Your task to perform on an android device: turn on notifications settings in the gmail app Image 0: 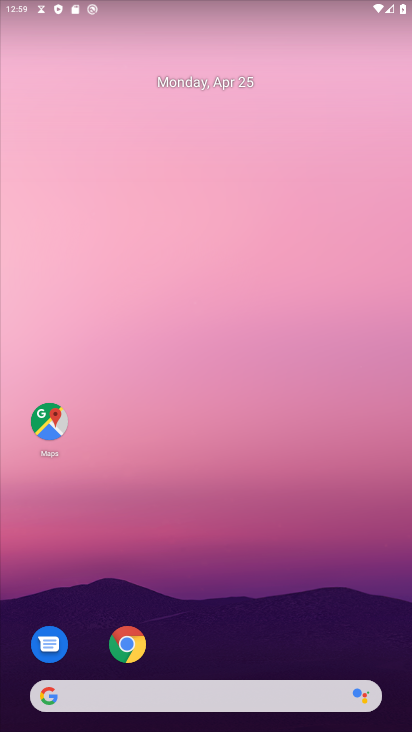
Step 0: drag from (376, 630) to (358, 29)
Your task to perform on an android device: turn on notifications settings in the gmail app Image 1: 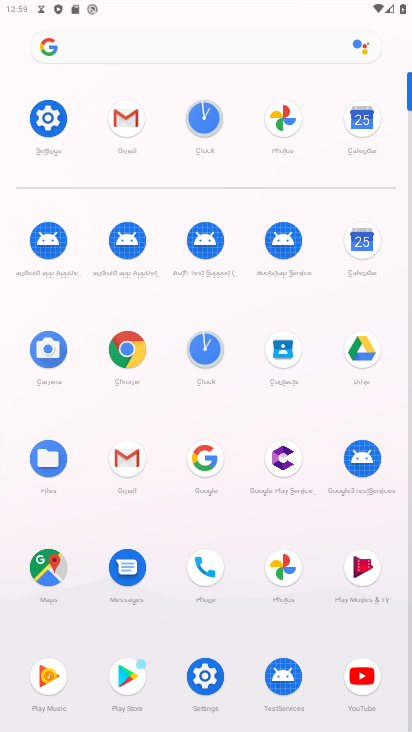
Step 1: click (123, 122)
Your task to perform on an android device: turn on notifications settings in the gmail app Image 2: 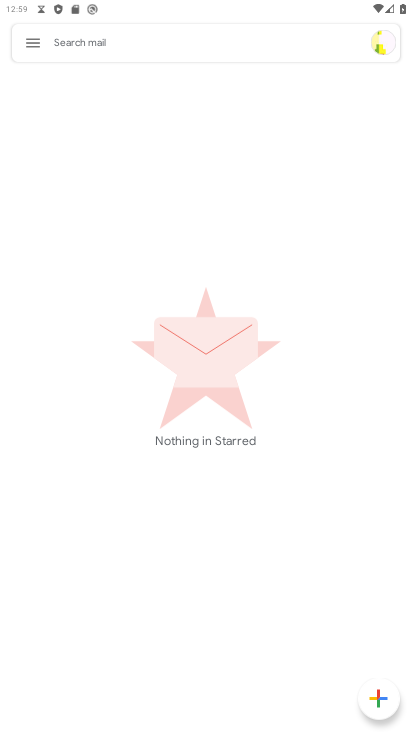
Step 2: click (33, 49)
Your task to perform on an android device: turn on notifications settings in the gmail app Image 3: 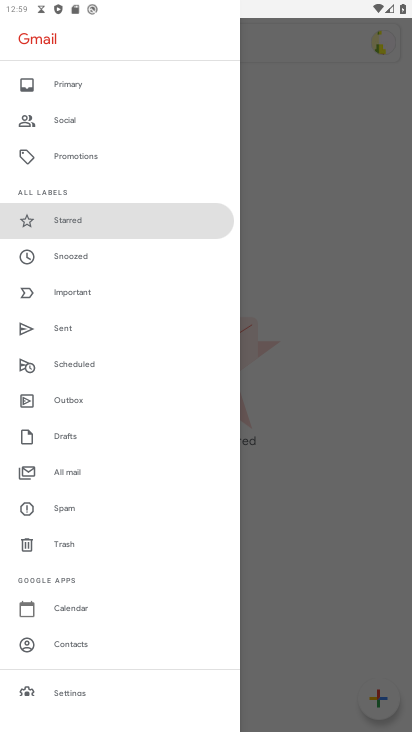
Step 3: click (69, 693)
Your task to perform on an android device: turn on notifications settings in the gmail app Image 4: 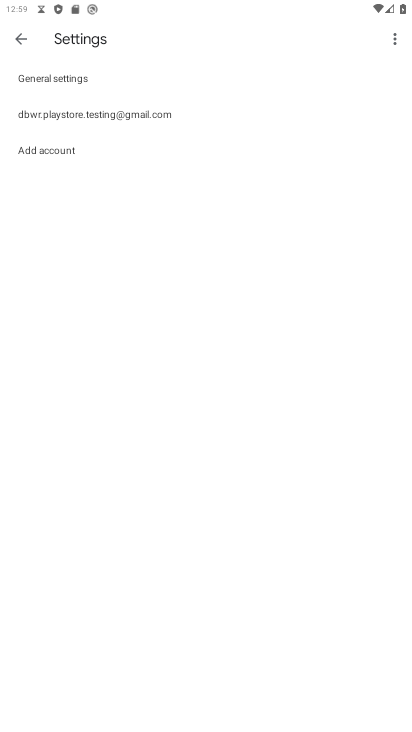
Step 4: click (63, 74)
Your task to perform on an android device: turn on notifications settings in the gmail app Image 5: 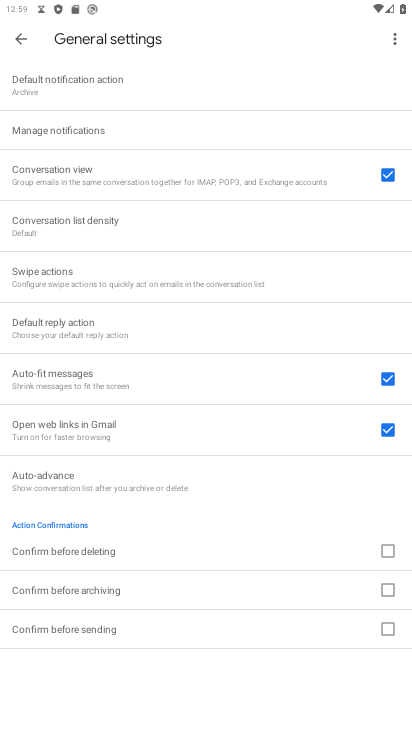
Step 5: click (68, 132)
Your task to perform on an android device: turn on notifications settings in the gmail app Image 6: 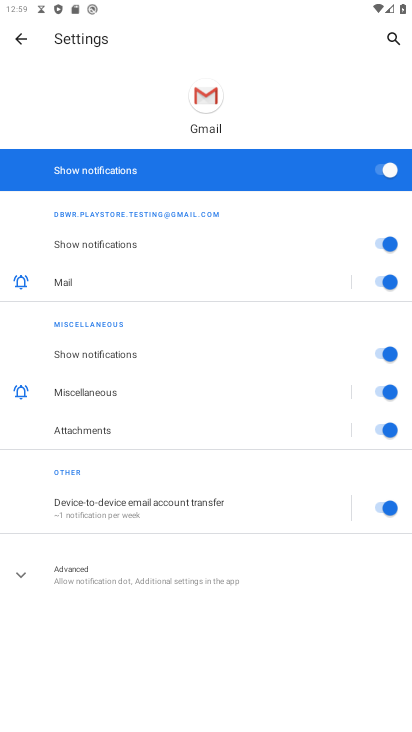
Step 6: task complete